Your task to perform on an android device: Go to sound settings Image 0: 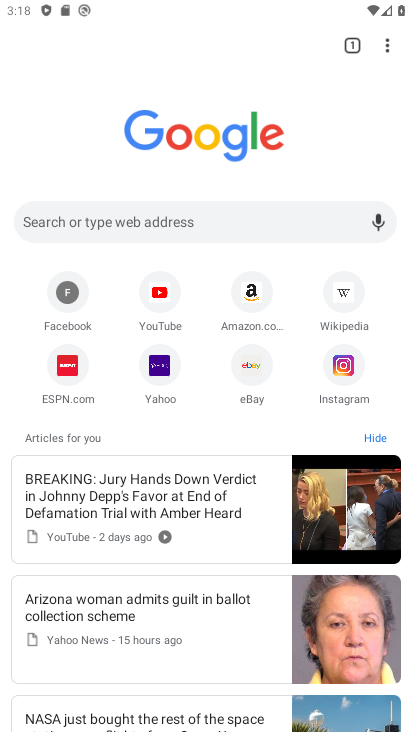
Step 0: drag from (221, 721) to (233, 292)
Your task to perform on an android device: Go to sound settings Image 1: 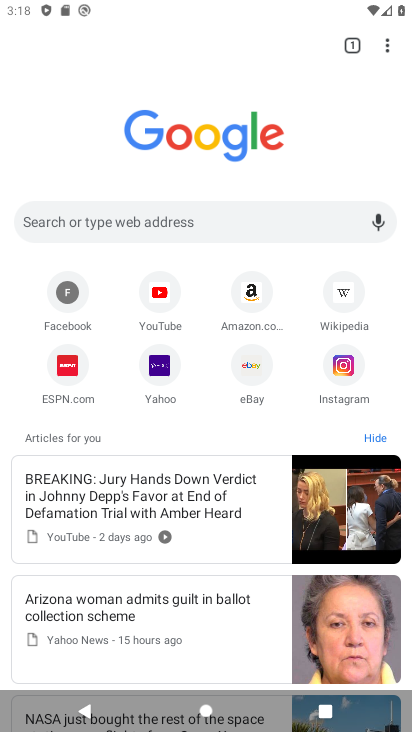
Step 1: press back button
Your task to perform on an android device: Go to sound settings Image 2: 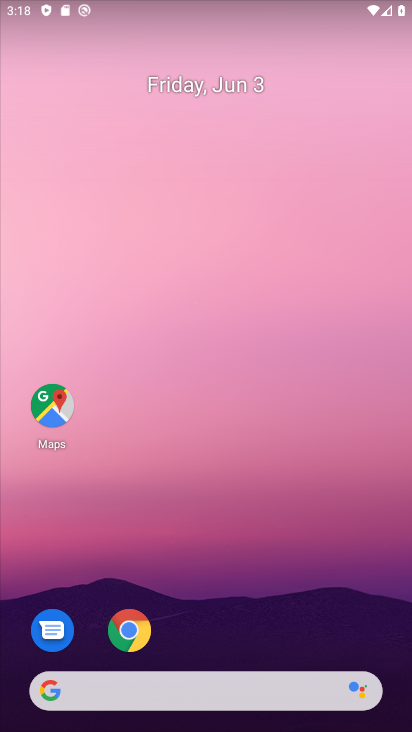
Step 2: drag from (286, 690) to (230, 78)
Your task to perform on an android device: Go to sound settings Image 3: 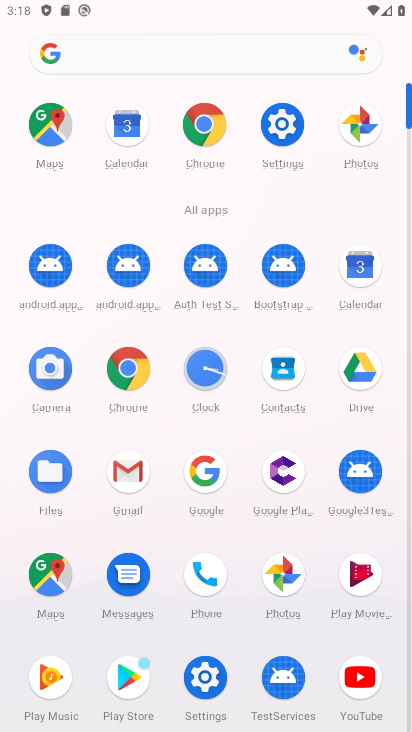
Step 3: click (199, 687)
Your task to perform on an android device: Go to sound settings Image 4: 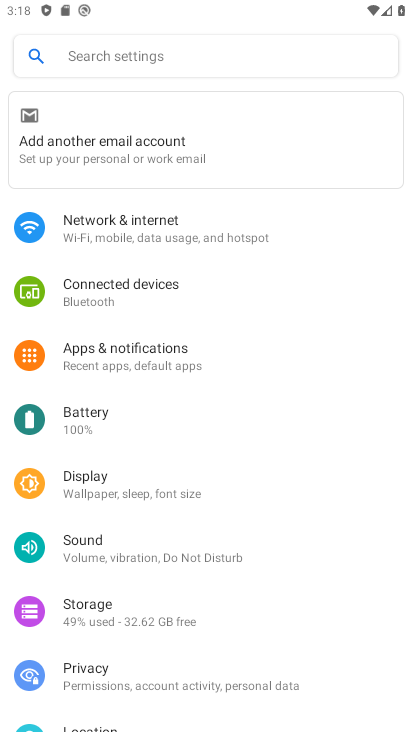
Step 4: click (81, 536)
Your task to perform on an android device: Go to sound settings Image 5: 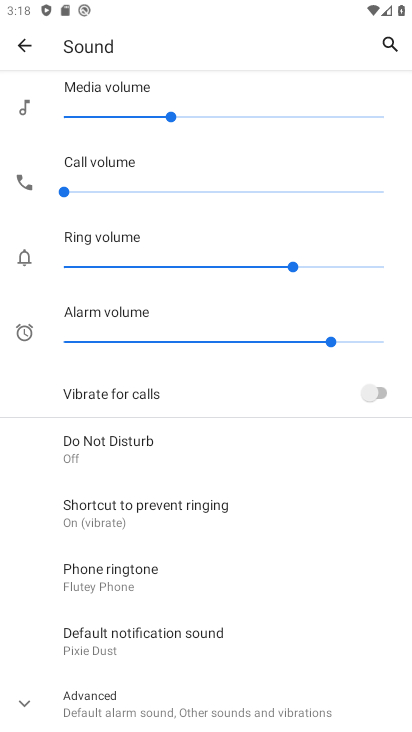
Step 5: task complete